Your task to perform on an android device: check storage Image 0: 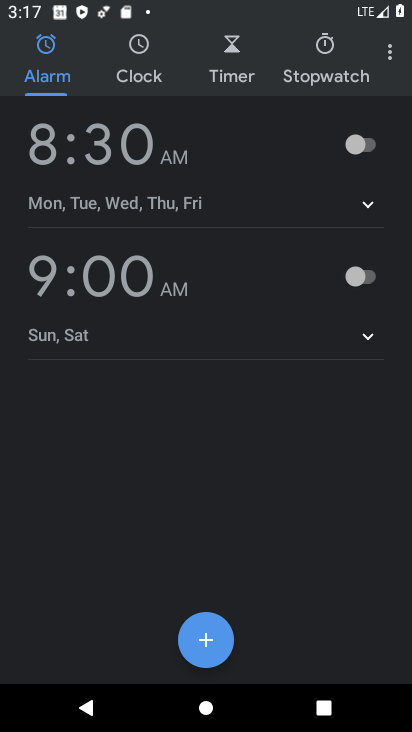
Step 0: press home button
Your task to perform on an android device: check storage Image 1: 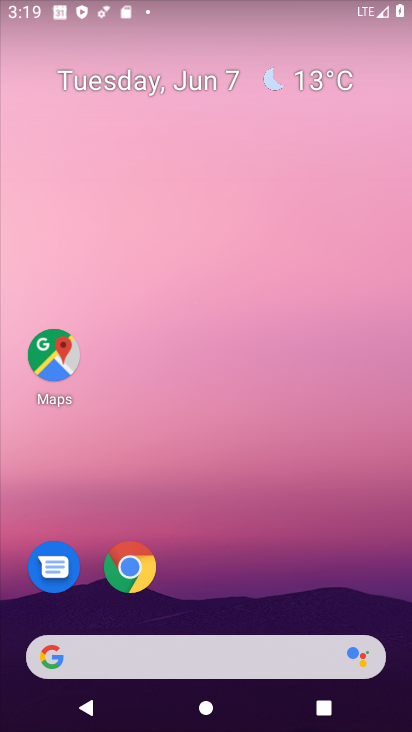
Step 1: drag from (264, 593) to (197, 52)
Your task to perform on an android device: check storage Image 2: 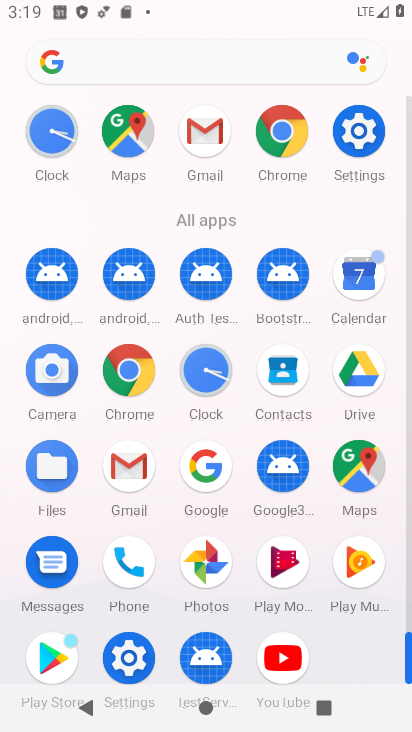
Step 2: click (356, 127)
Your task to perform on an android device: check storage Image 3: 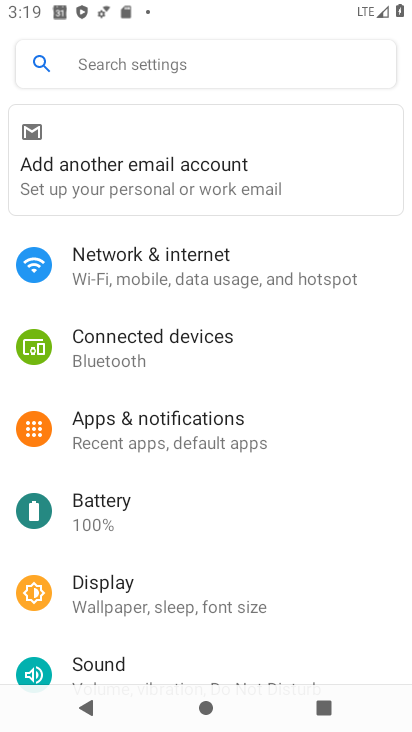
Step 3: drag from (230, 517) to (193, 75)
Your task to perform on an android device: check storage Image 4: 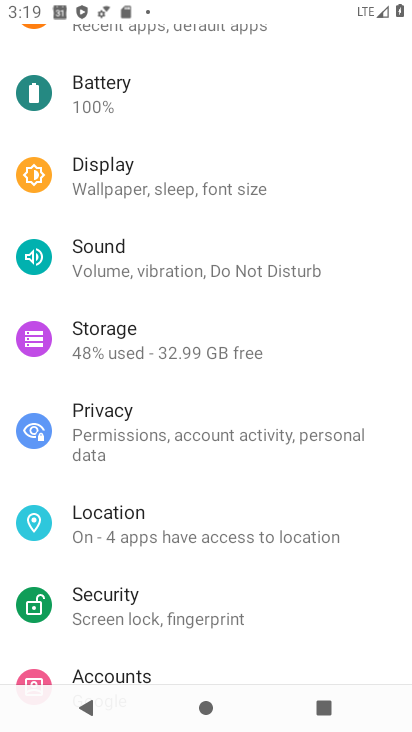
Step 4: click (180, 331)
Your task to perform on an android device: check storage Image 5: 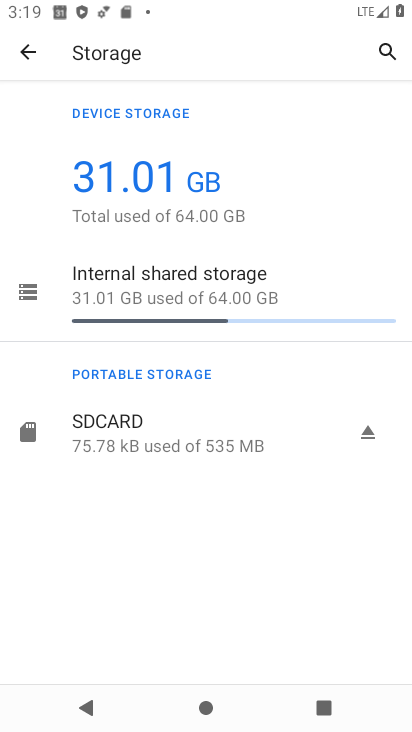
Step 5: task complete